Your task to perform on an android device: Clear all items from cart on walmart. Search for "sony triple a" on walmart, select the first entry, and add it to the cart. Image 0: 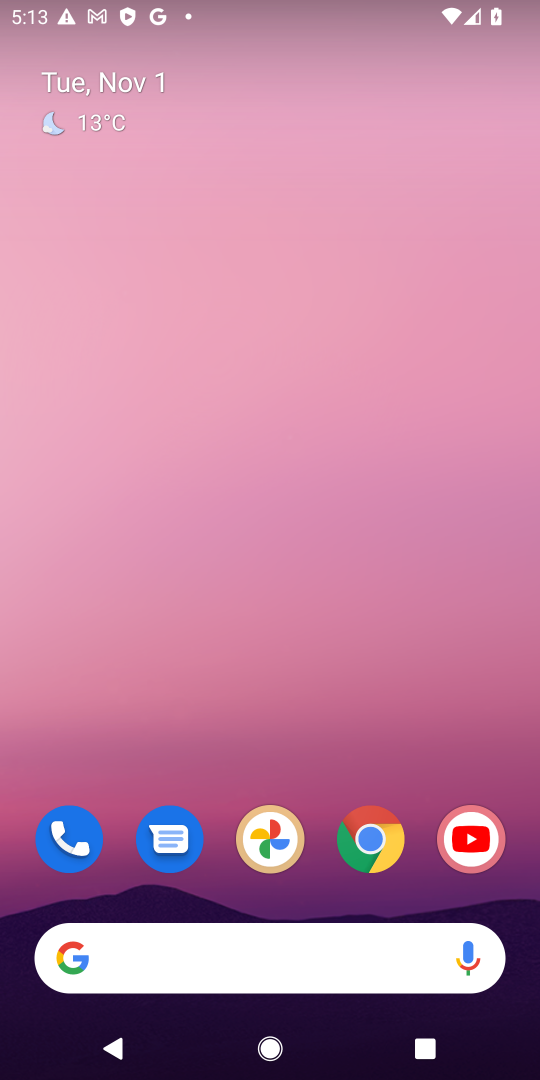
Step 0: drag from (299, 879) to (365, 186)
Your task to perform on an android device: Clear all items from cart on walmart. Search for "sony triple a" on walmart, select the first entry, and add it to the cart. Image 1: 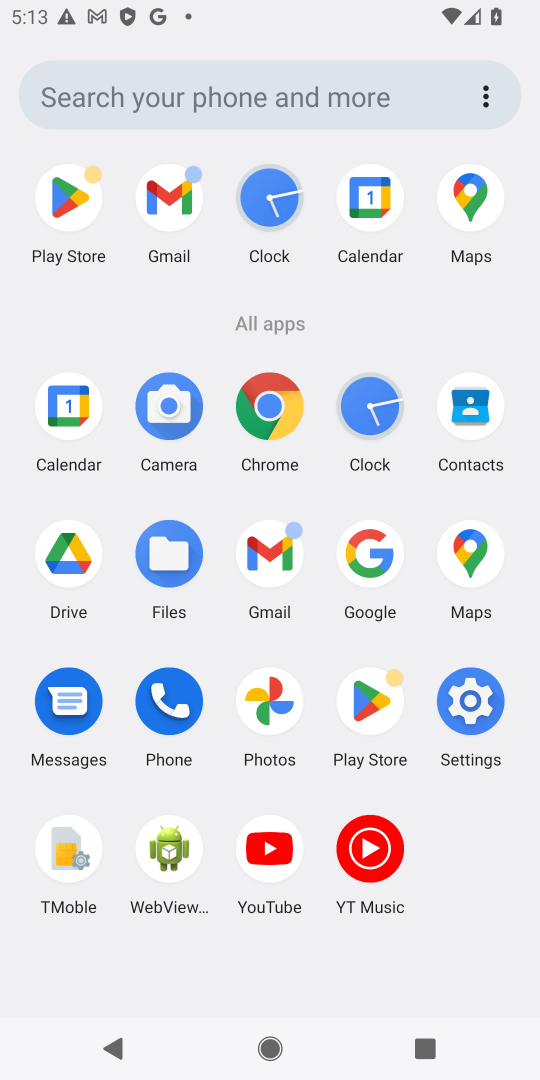
Step 1: click (271, 401)
Your task to perform on an android device: Clear all items from cart on walmart. Search for "sony triple a" on walmart, select the first entry, and add it to the cart. Image 2: 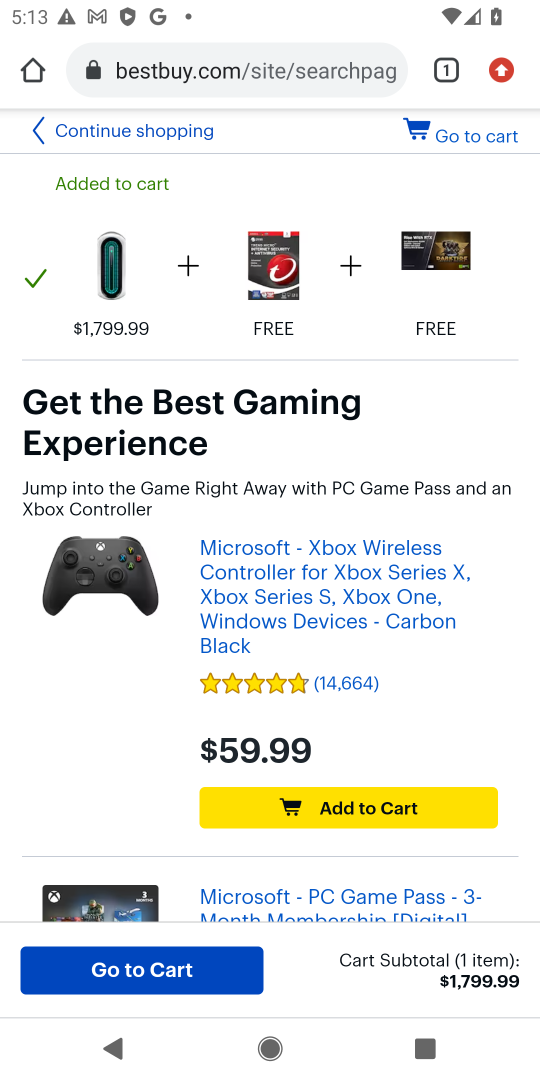
Step 2: click (219, 76)
Your task to perform on an android device: Clear all items from cart on walmart. Search for "sony triple a" on walmart, select the first entry, and add it to the cart. Image 3: 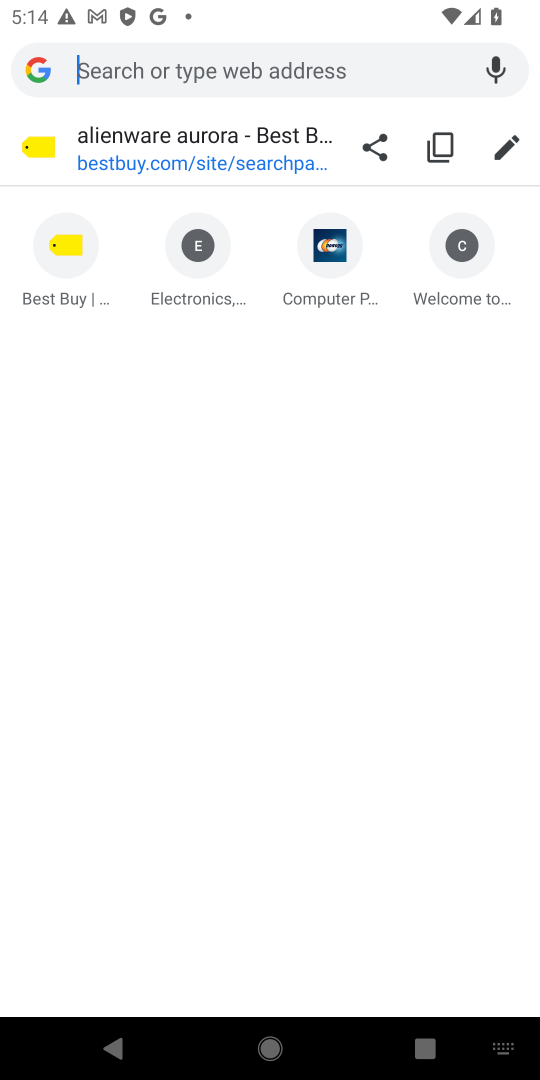
Step 3: type "walmart.com"
Your task to perform on an android device: Clear all items from cart on walmart. Search for "sony triple a" on walmart, select the first entry, and add it to the cart. Image 4: 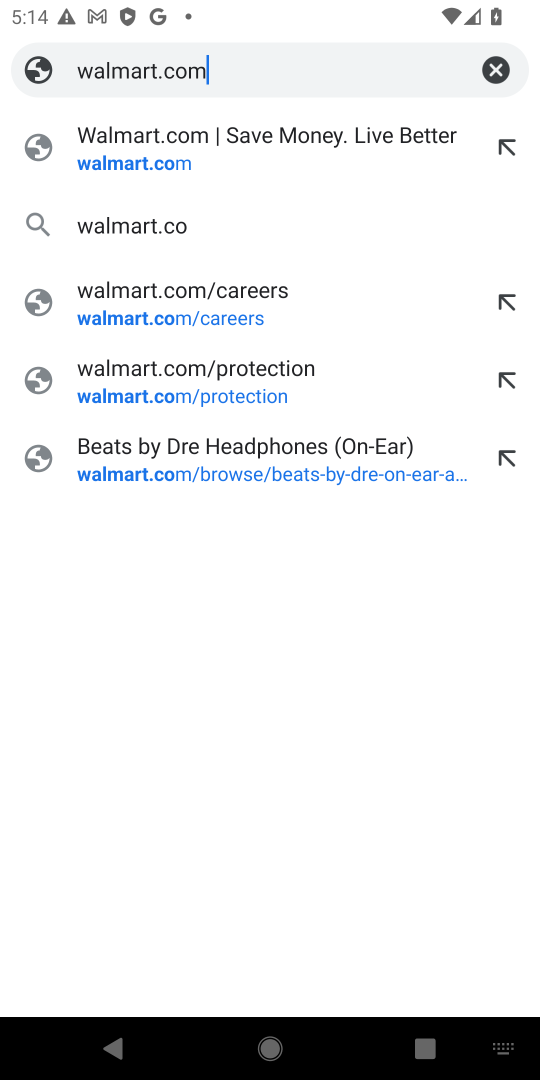
Step 4: press enter
Your task to perform on an android device: Clear all items from cart on walmart. Search for "sony triple a" on walmart, select the first entry, and add it to the cart. Image 5: 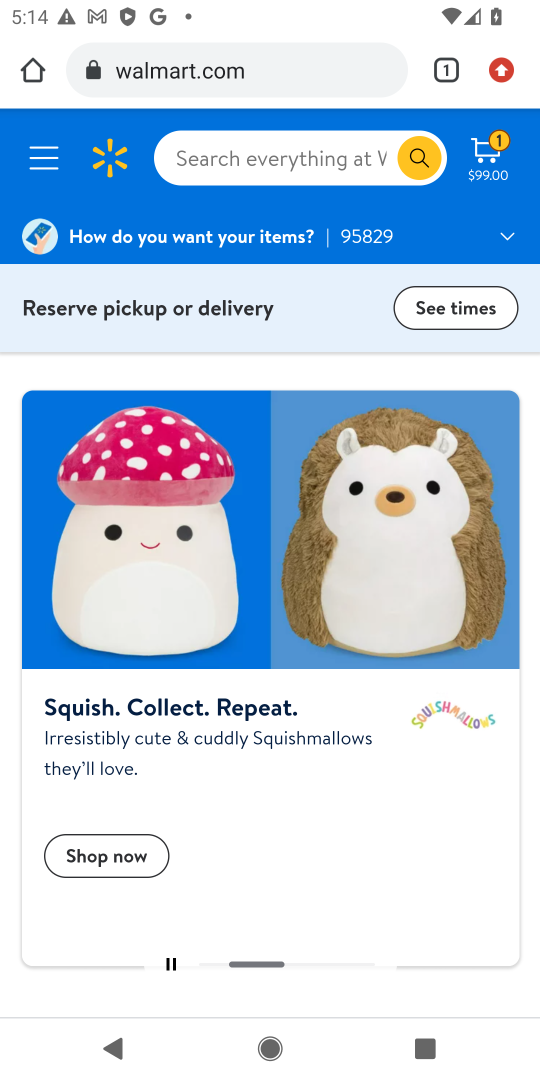
Step 5: click (499, 152)
Your task to perform on an android device: Clear all items from cart on walmart. Search for "sony triple a" on walmart, select the first entry, and add it to the cart. Image 6: 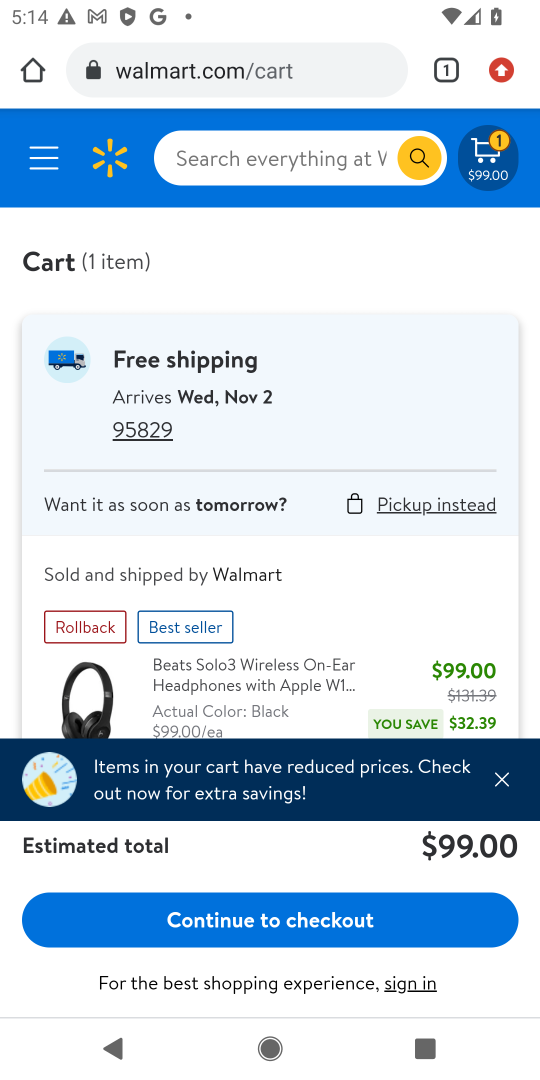
Step 6: drag from (332, 604) to (299, 146)
Your task to perform on an android device: Clear all items from cart on walmart. Search for "sony triple a" on walmart, select the first entry, and add it to the cart. Image 7: 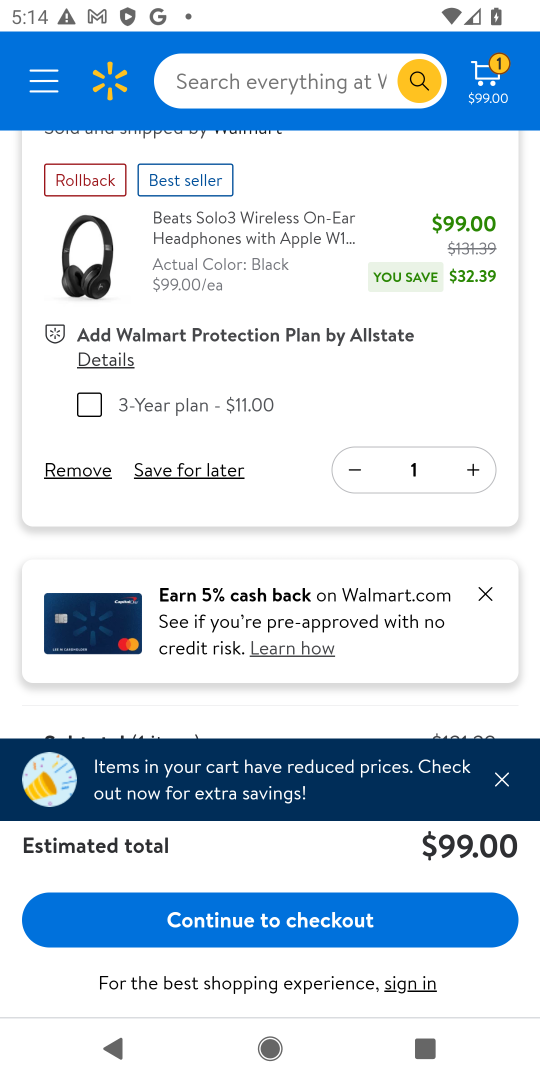
Step 7: click (89, 472)
Your task to perform on an android device: Clear all items from cart on walmart. Search for "sony triple a" on walmart, select the first entry, and add it to the cart. Image 8: 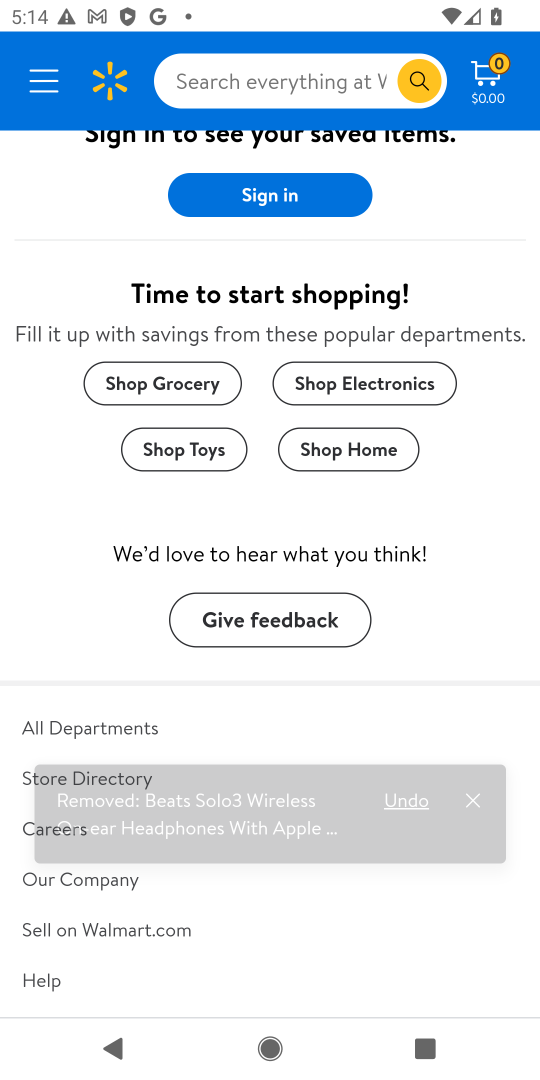
Step 8: click (339, 63)
Your task to perform on an android device: Clear all items from cart on walmart. Search for "sony triple a" on walmart, select the first entry, and add it to the cart. Image 9: 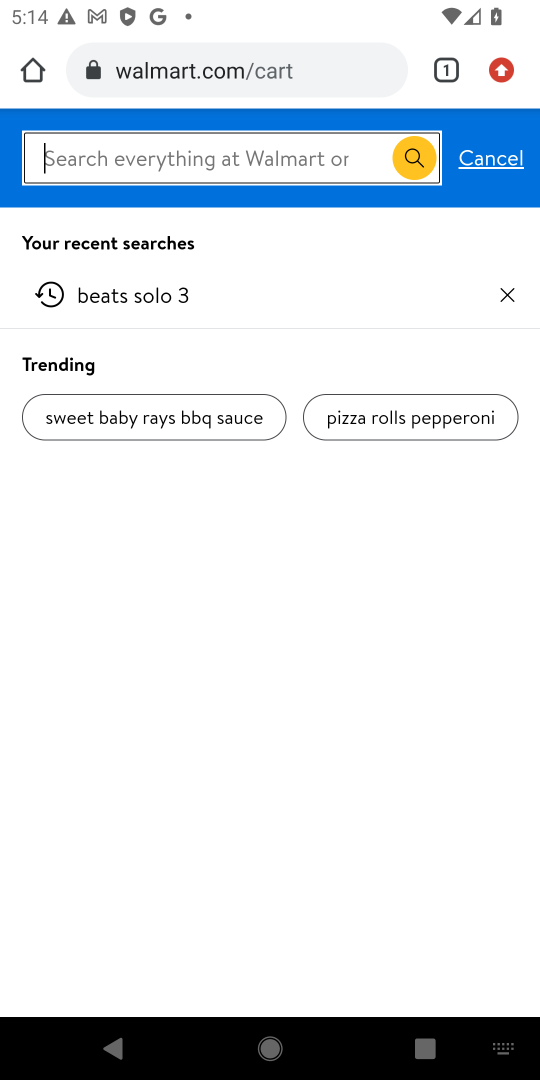
Step 9: type "sony triple a"
Your task to perform on an android device: Clear all items from cart on walmart. Search for "sony triple a" on walmart, select the first entry, and add it to the cart. Image 10: 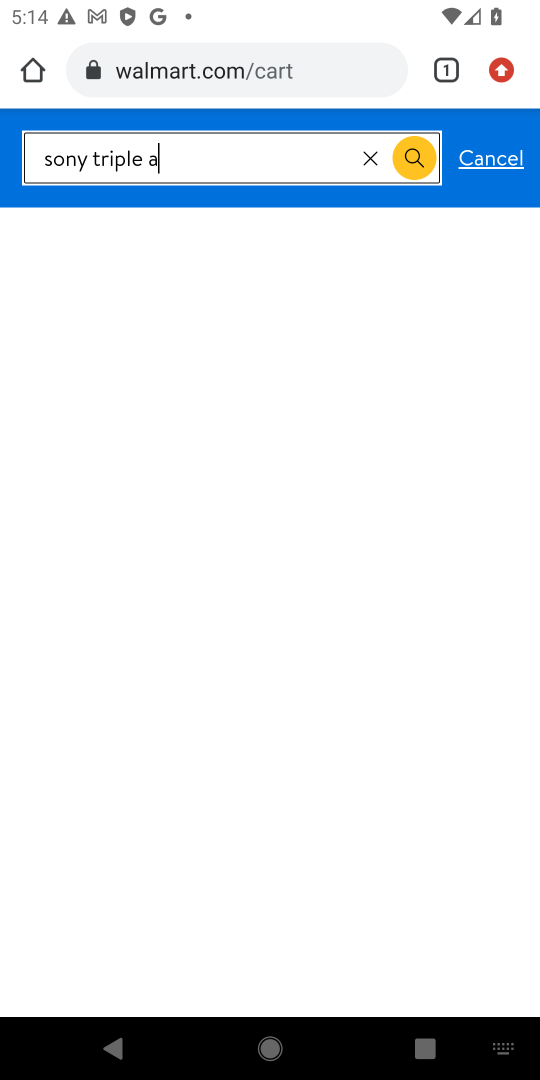
Step 10: press enter
Your task to perform on an android device: Clear all items from cart on walmart. Search for "sony triple a" on walmart, select the first entry, and add it to the cart. Image 11: 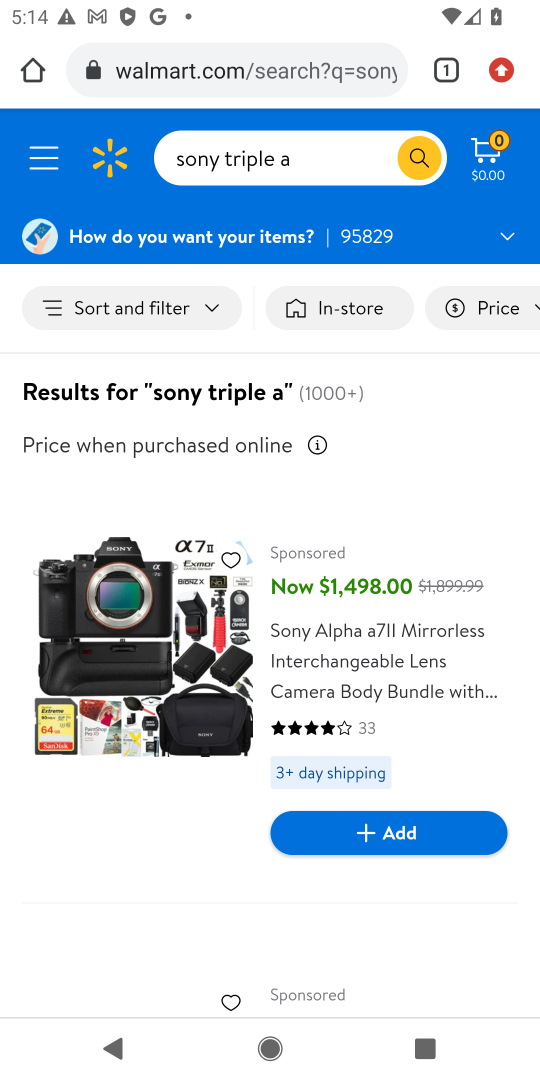
Step 11: task complete